Your task to perform on an android device: Check the weather Image 0: 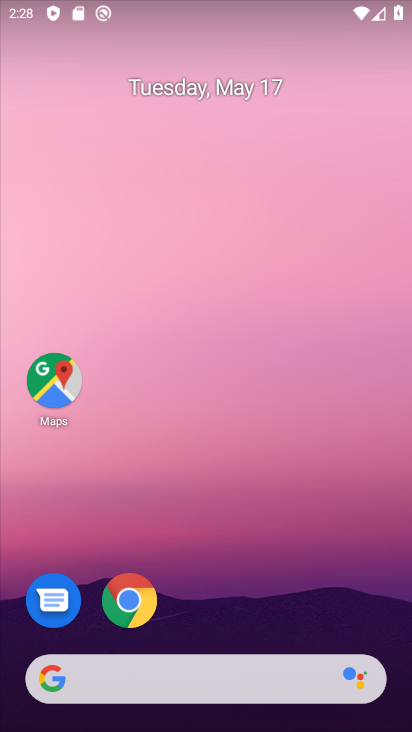
Step 0: drag from (52, 266) to (348, 243)
Your task to perform on an android device: Check the weather Image 1: 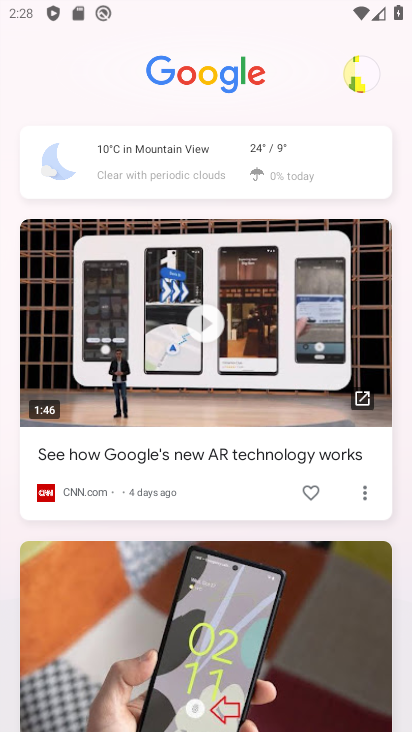
Step 1: click (297, 179)
Your task to perform on an android device: Check the weather Image 2: 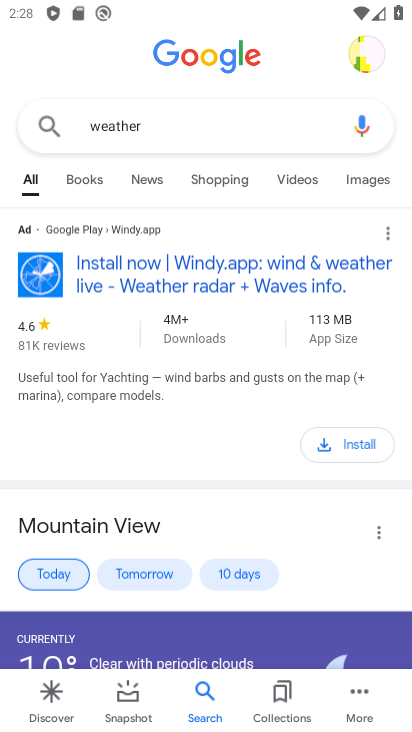
Step 2: task complete